Your task to perform on an android device: Do I have any events tomorrow? Image 0: 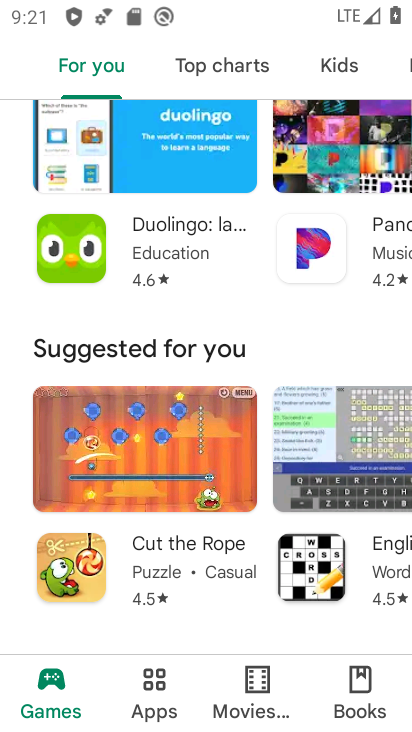
Step 0: press home button
Your task to perform on an android device: Do I have any events tomorrow? Image 1: 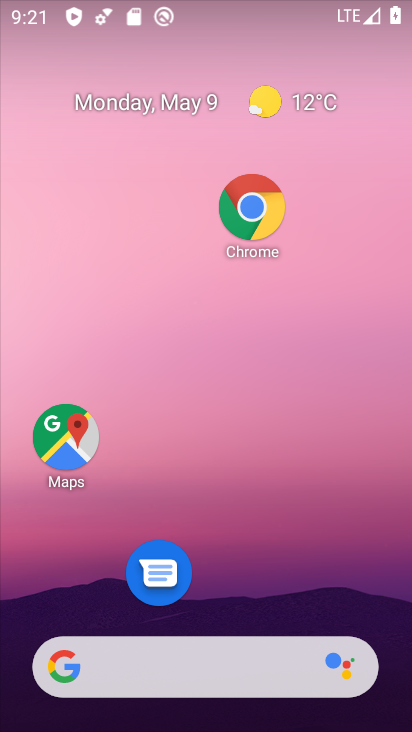
Step 1: drag from (225, 625) to (224, 133)
Your task to perform on an android device: Do I have any events tomorrow? Image 2: 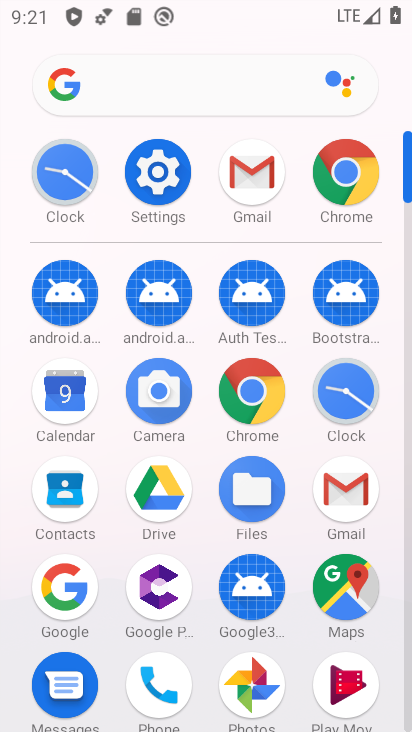
Step 2: click (65, 416)
Your task to perform on an android device: Do I have any events tomorrow? Image 3: 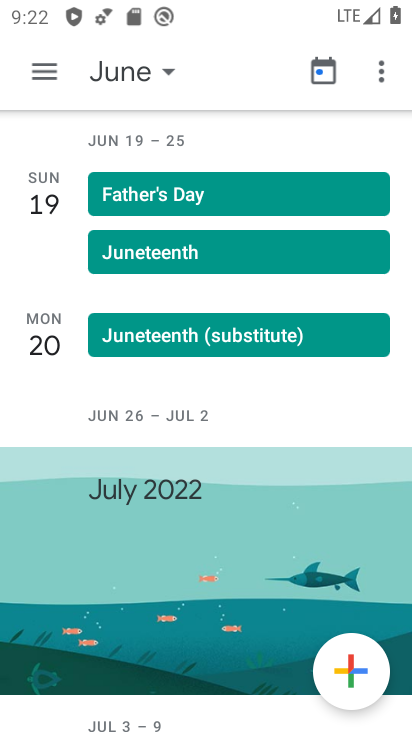
Step 3: click (126, 62)
Your task to perform on an android device: Do I have any events tomorrow? Image 4: 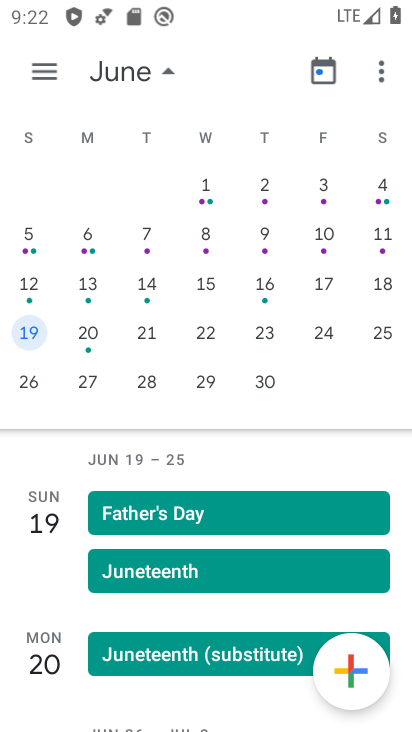
Step 4: drag from (89, 254) to (411, 370)
Your task to perform on an android device: Do I have any events tomorrow? Image 5: 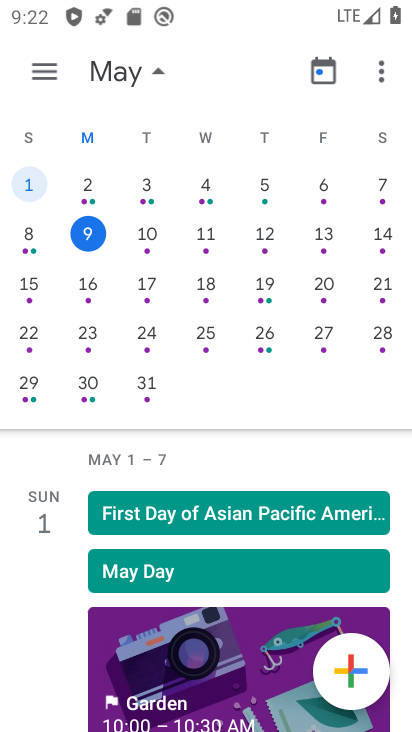
Step 5: drag from (171, 373) to (254, 404)
Your task to perform on an android device: Do I have any events tomorrow? Image 6: 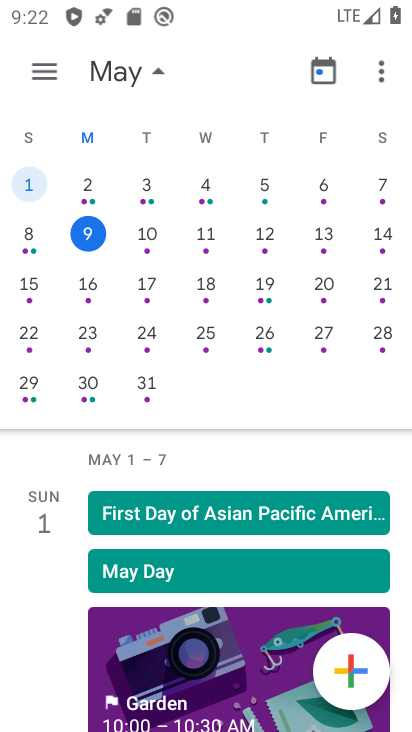
Step 6: click (87, 230)
Your task to perform on an android device: Do I have any events tomorrow? Image 7: 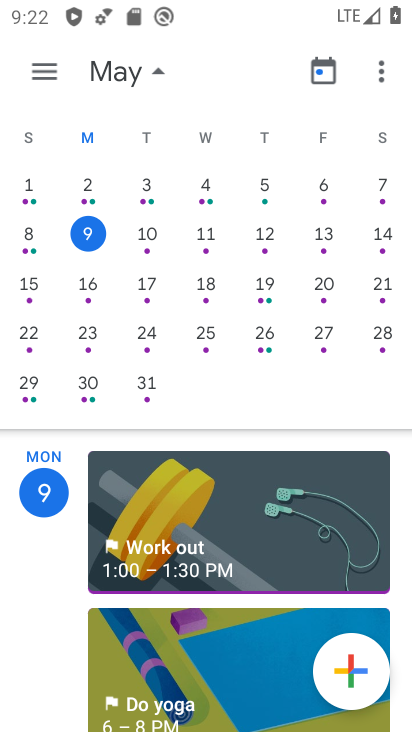
Step 7: task complete